Your task to perform on an android device: turn smart compose on in the gmail app Image 0: 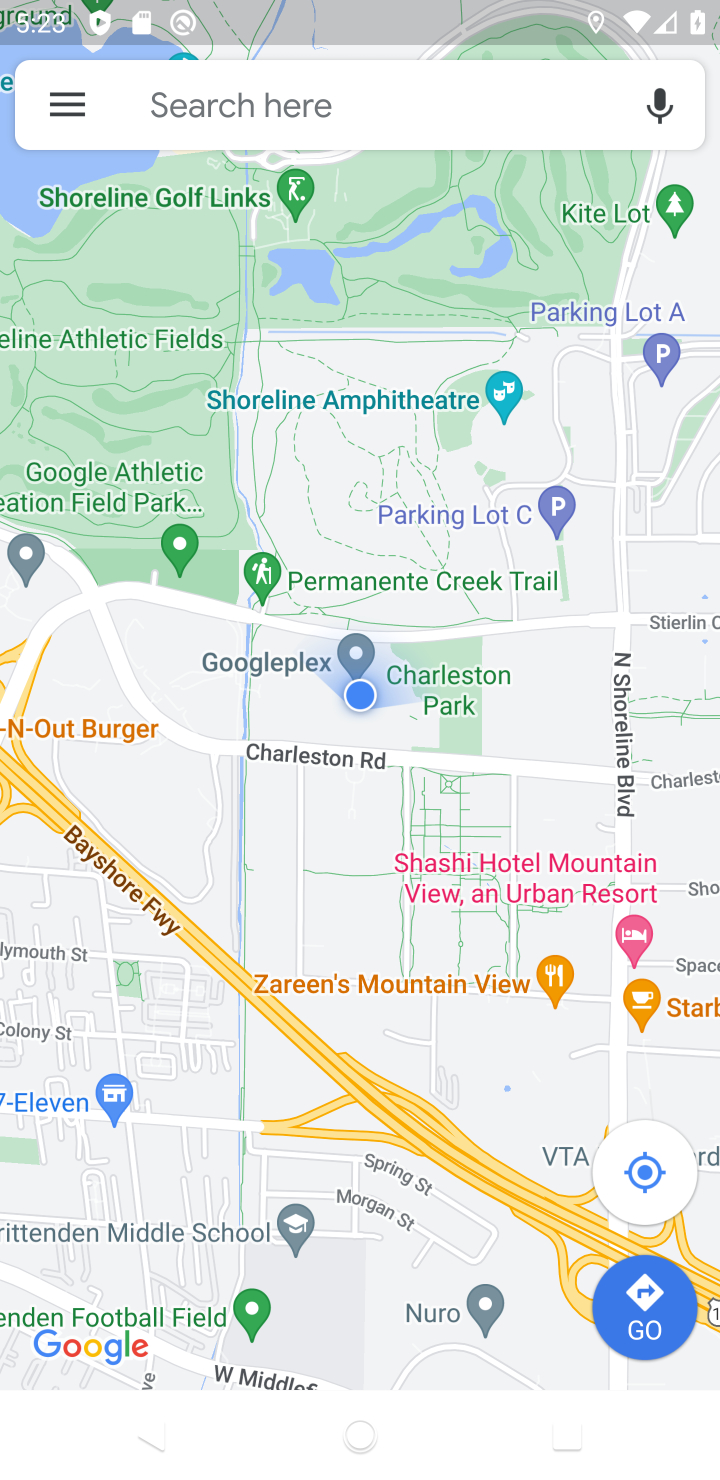
Step 0: press home button
Your task to perform on an android device: turn smart compose on in the gmail app Image 1: 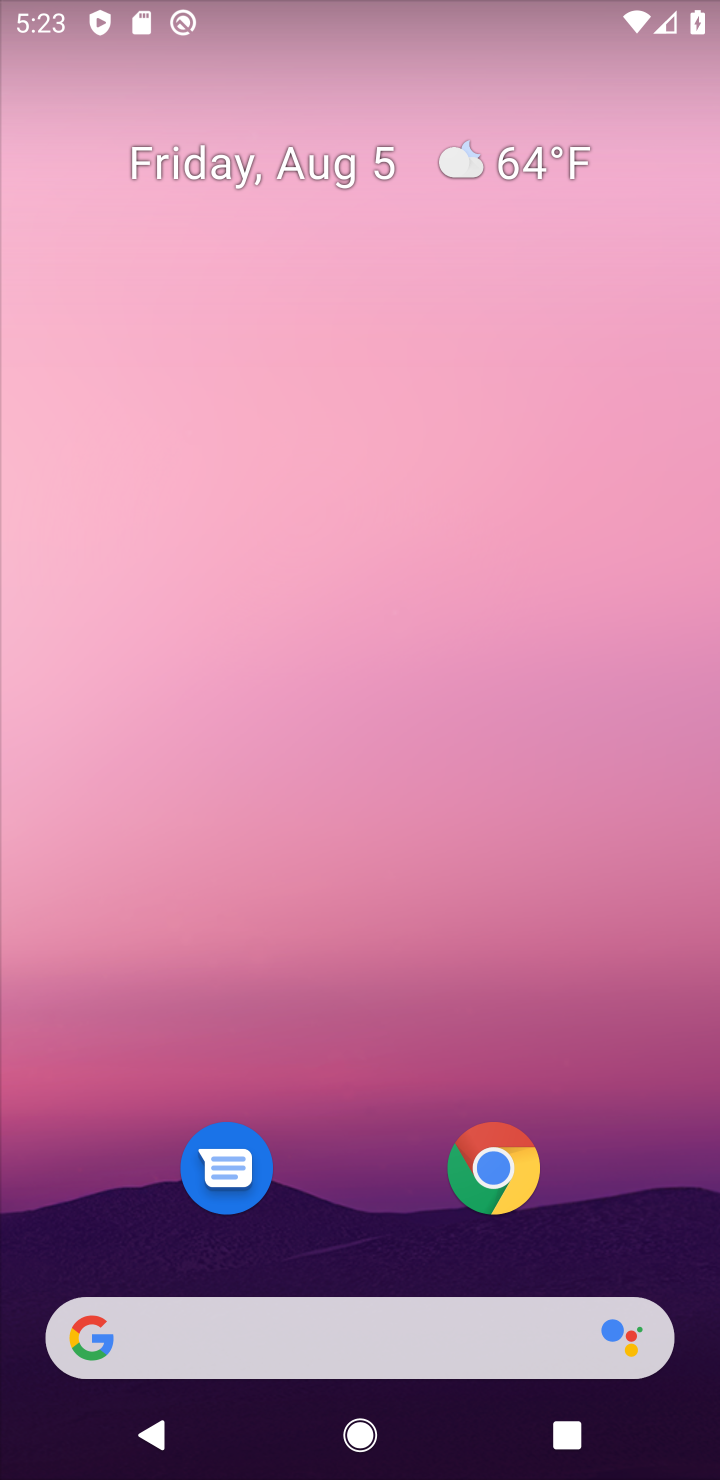
Step 1: drag from (378, 1275) to (562, 330)
Your task to perform on an android device: turn smart compose on in the gmail app Image 2: 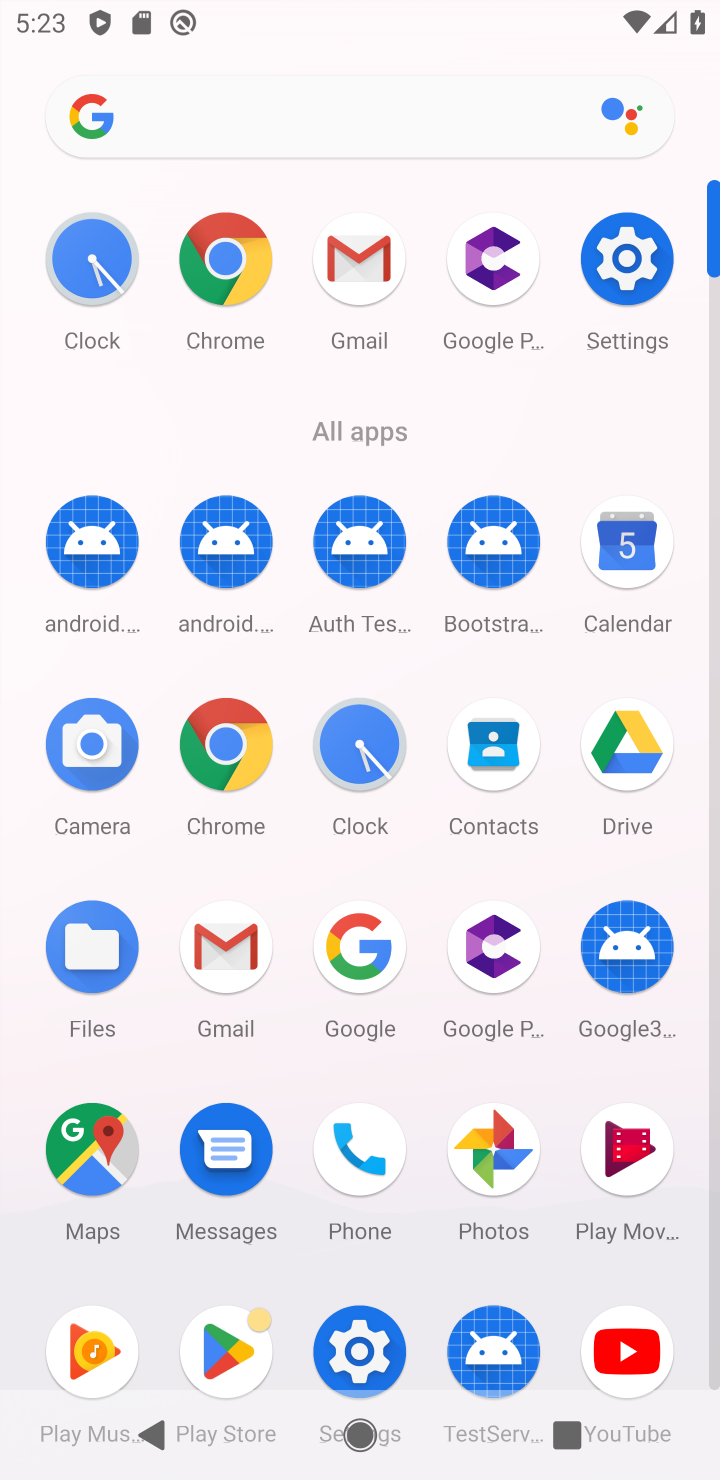
Step 2: click (365, 292)
Your task to perform on an android device: turn smart compose on in the gmail app Image 3: 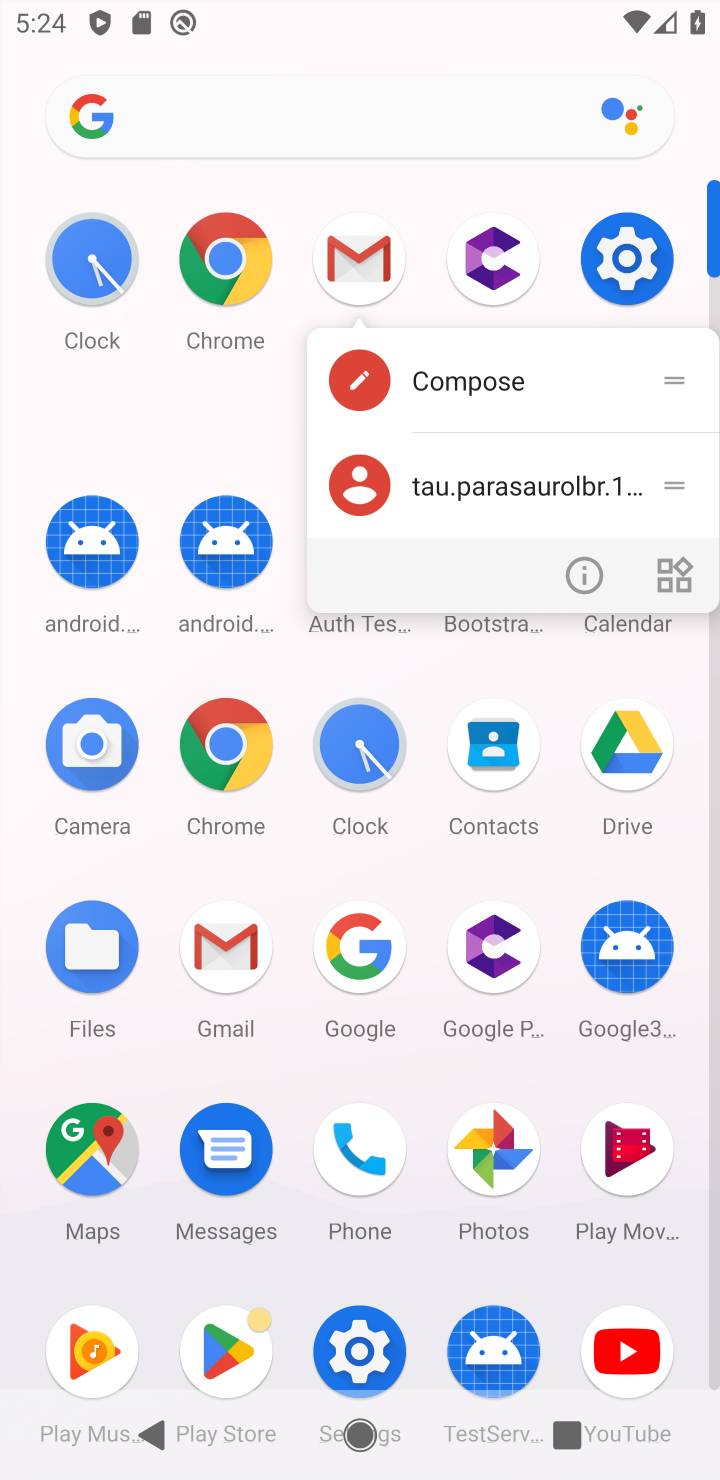
Step 3: click (368, 270)
Your task to perform on an android device: turn smart compose on in the gmail app Image 4: 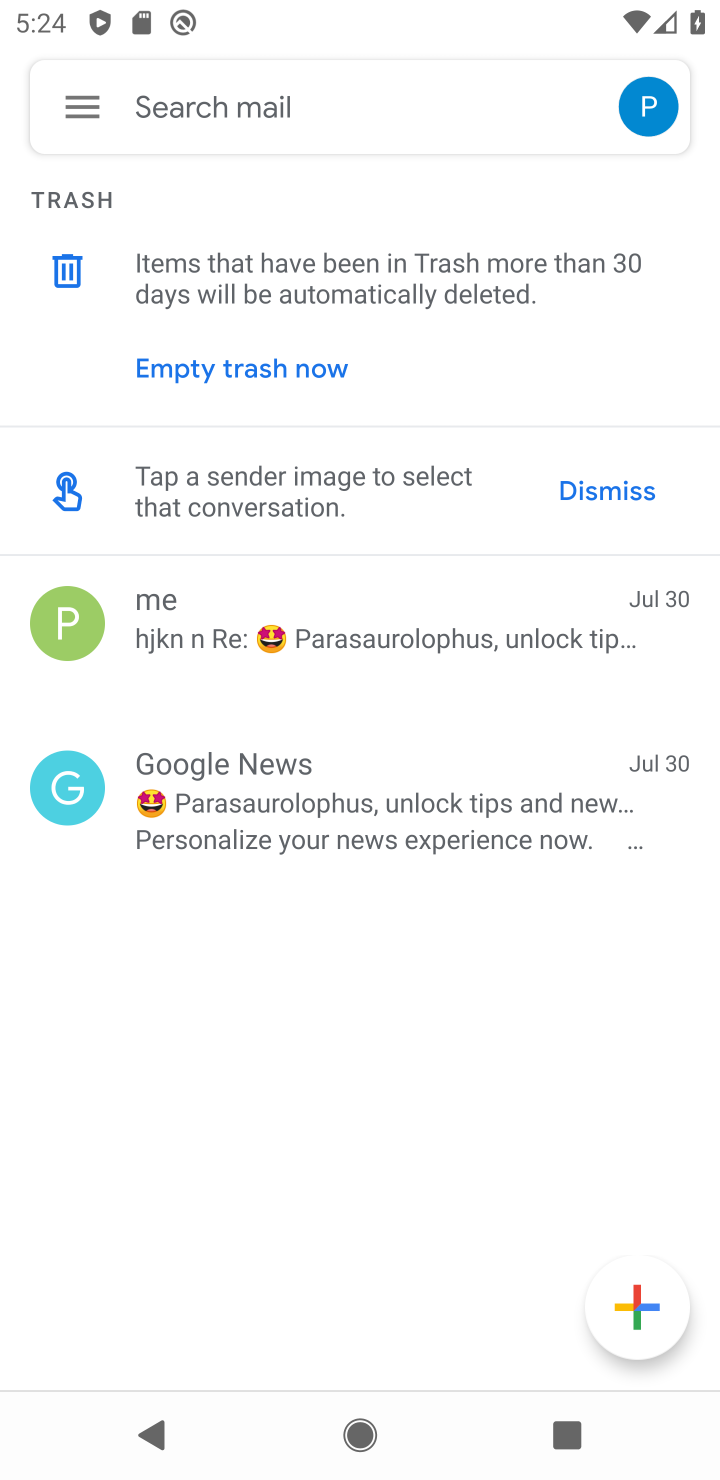
Step 4: click (59, 115)
Your task to perform on an android device: turn smart compose on in the gmail app Image 5: 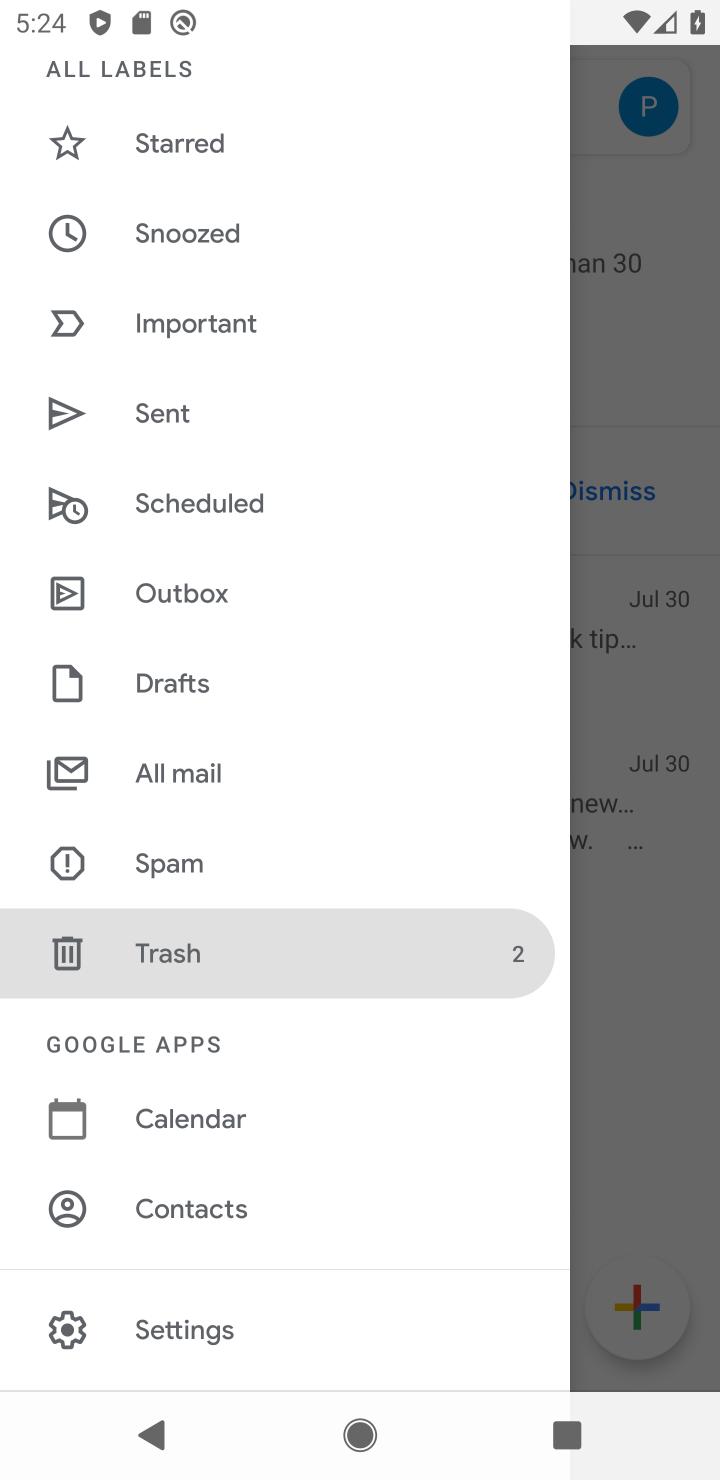
Step 5: click (168, 1333)
Your task to perform on an android device: turn smart compose on in the gmail app Image 6: 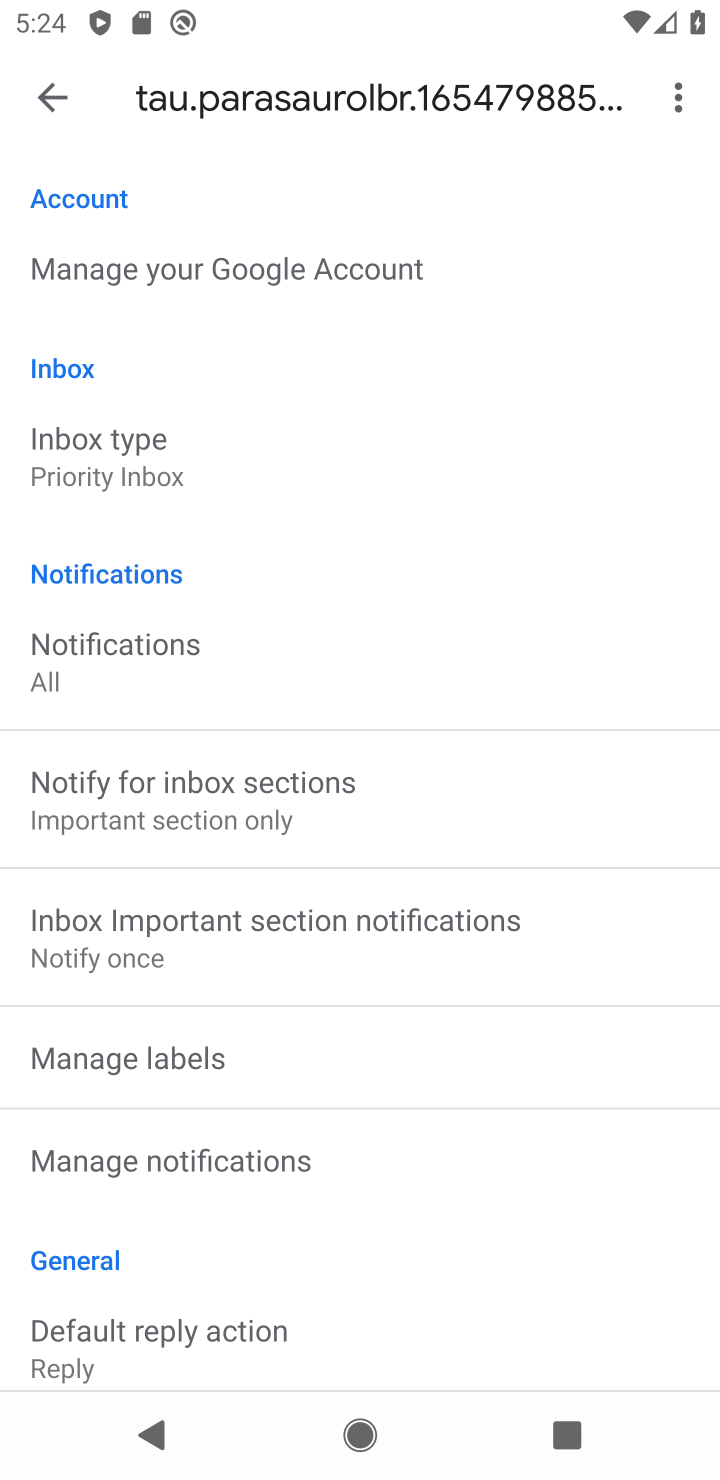
Step 6: task complete